Your task to perform on an android device: toggle sleep mode Image 0: 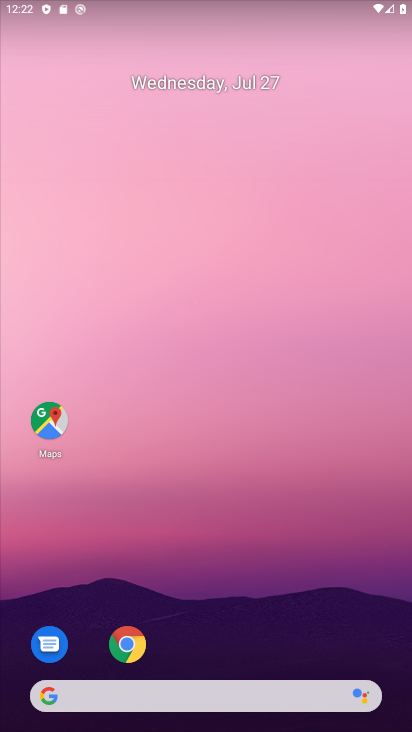
Step 0: drag from (208, 531) to (278, 26)
Your task to perform on an android device: toggle sleep mode Image 1: 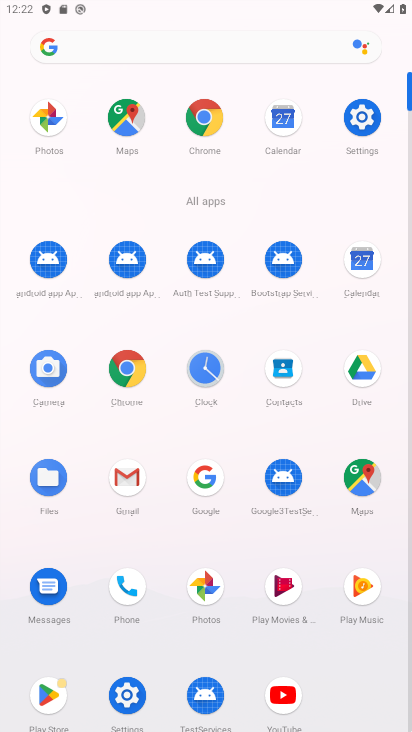
Step 1: click (131, 689)
Your task to perform on an android device: toggle sleep mode Image 2: 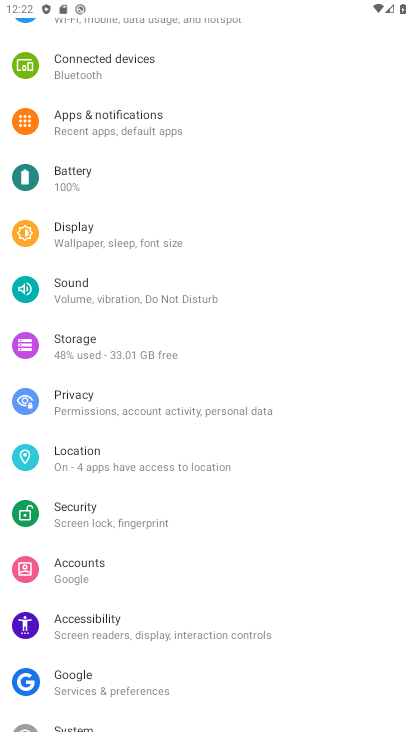
Step 2: drag from (222, 326) to (215, 609)
Your task to perform on an android device: toggle sleep mode Image 3: 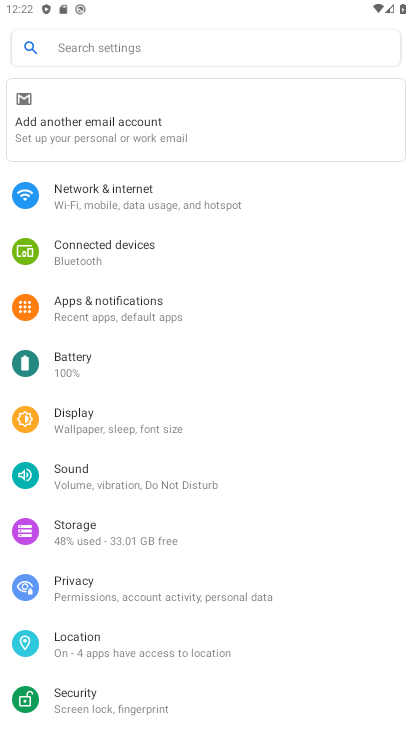
Step 3: click (137, 53)
Your task to perform on an android device: toggle sleep mode Image 4: 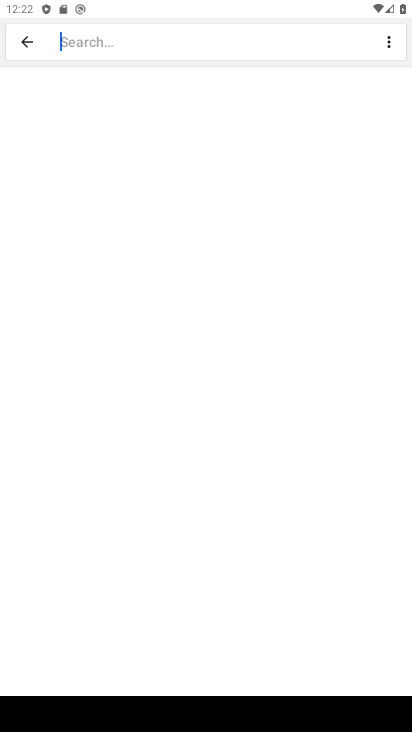
Step 4: type "sleep mode"
Your task to perform on an android device: toggle sleep mode Image 5: 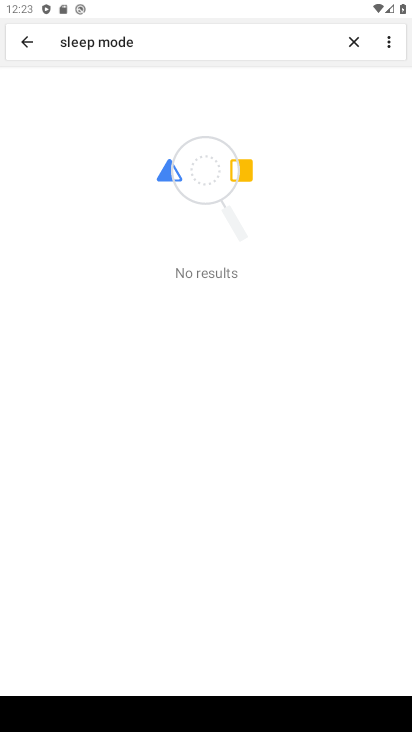
Step 5: task complete